Your task to perform on an android device: add a contact in the contacts app Image 0: 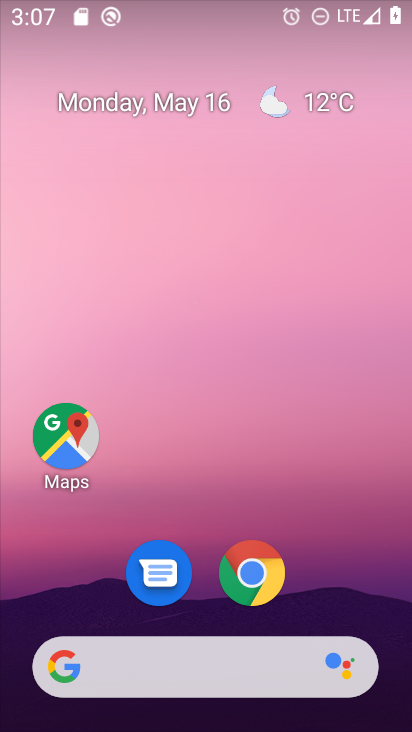
Step 0: drag from (167, 641) to (122, 100)
Your task to perform on an android device: add a contact in the contacts app Image 1: 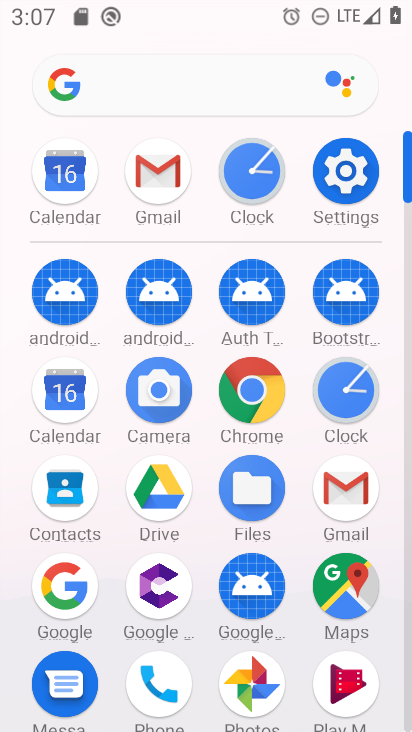
Step 1: click (83, 492)
Your task to perform on an android device: add a contact in the contacts app Image 2: 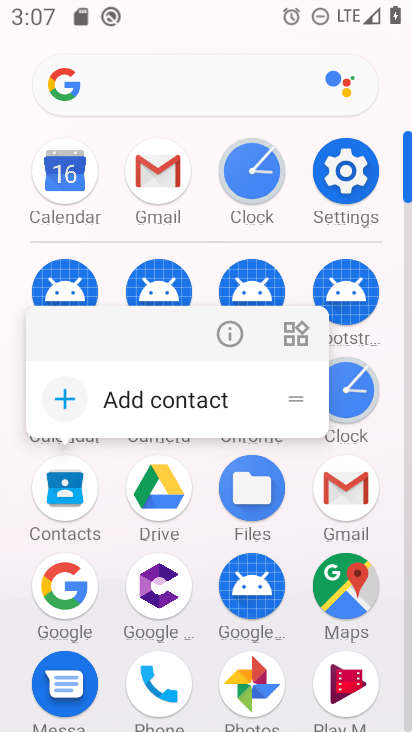
Step 2: click (67, 496)
Your task to perform on an android device: add a contact in the contacts app Image 3: 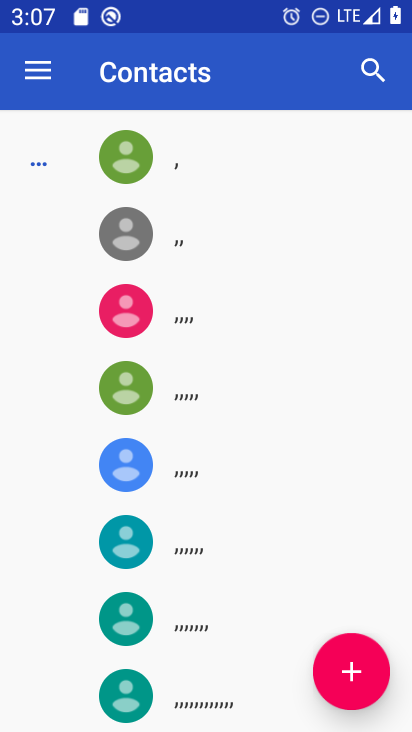
Step 3: click (339, 650)
Your task to perform on an android device: add a contact in the contacts app Image 4: 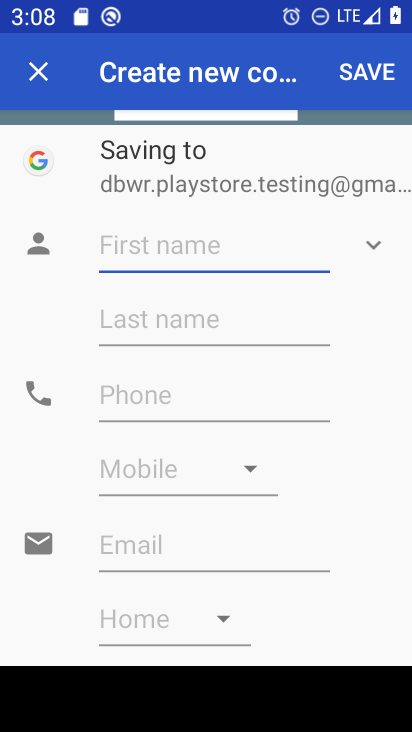
Step 4: type "nbvb"
Your task to perform on an android device: add a contact in the contacts app Image 5: 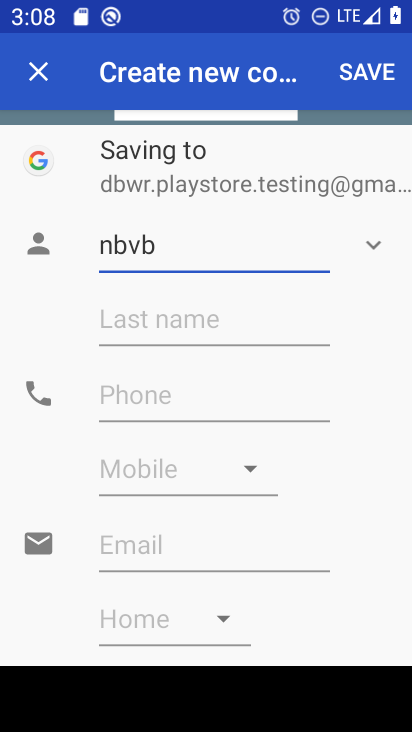
Step 5: click (126, 397)
Your task to perform on an android device: add a contact in the contacts app Image 6: 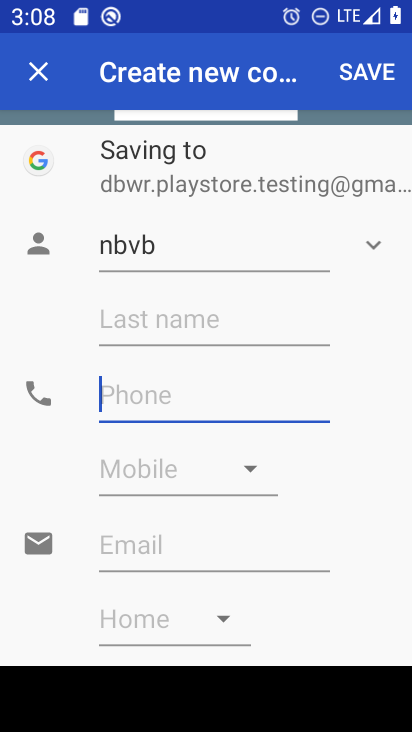
Step 6: type "9808980"
Your task to perform on an android device: add a contact in the contacts app Image 7: 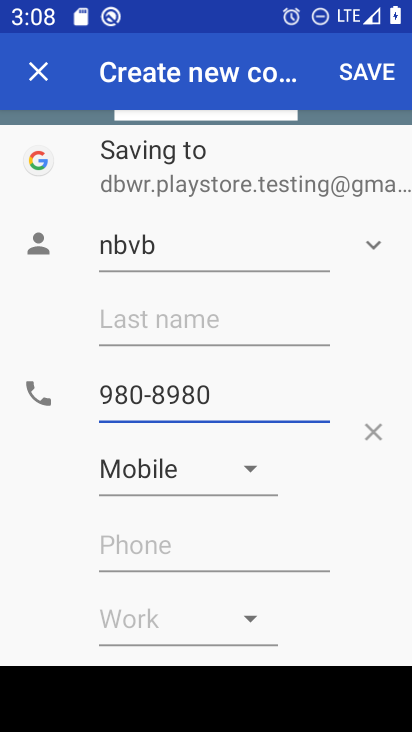
Step 7: click (356, 74)
Your task to perform on an android device: add a contact in the contacts app Image 8: 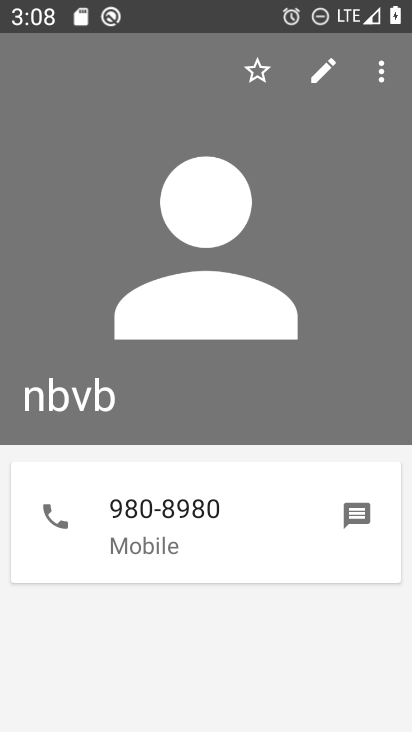
Step 8: task complete